Your task to perform on an android device: See recent photos Image 0: 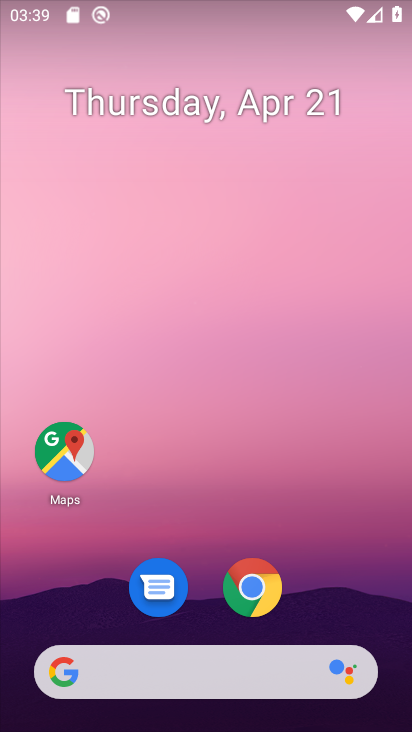
Step 0: drag from (343, 601) to (356, 232)
Your task to perform on an android device: See recent photos Image 1: 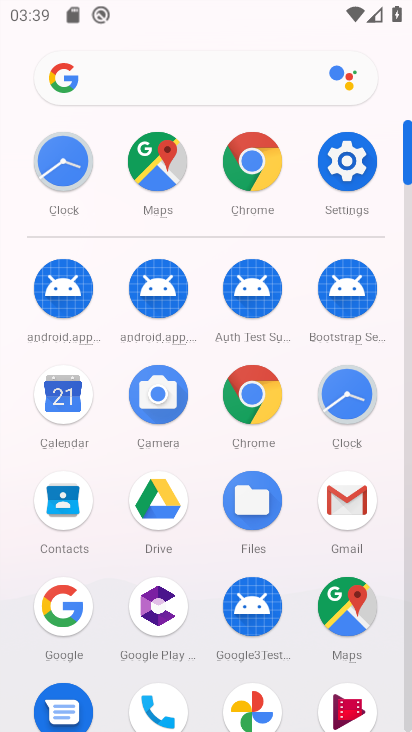
Step 1: drag from (206, 553) to (198, 396)
Your task to perform on an android device: See recent photos Image 2: 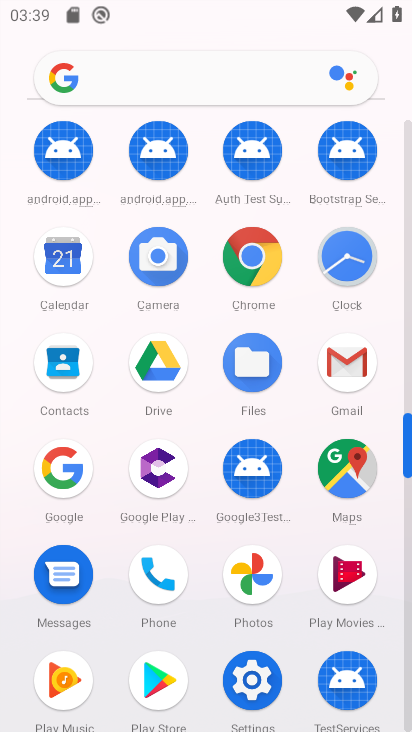
Step 2: drag from (193, 563) to (188, 444)
Your task to perform on an android device: See recent photos Image 3: 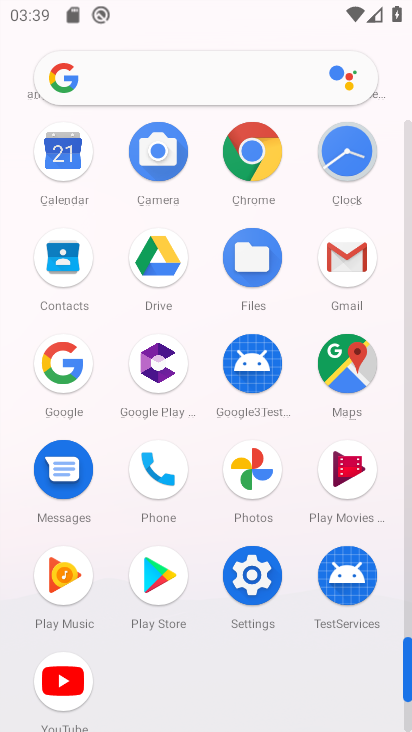
Step 3: click (263, 471)
Your task to perform on an android device: See recent photos Image 4: 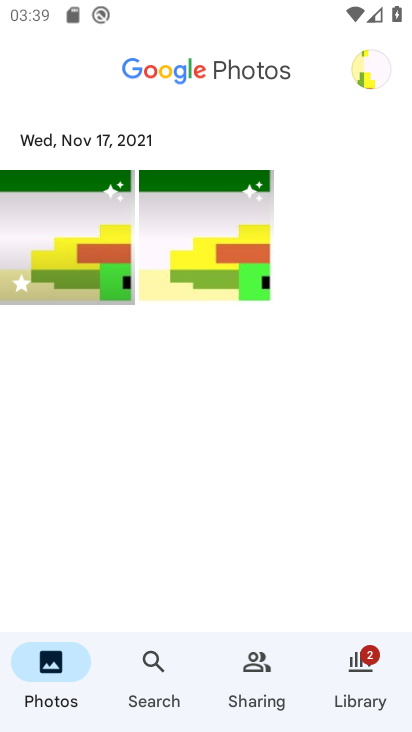
Step 4: click (204, 256)
Your task to perform on an android device: See recent photos Image 5: 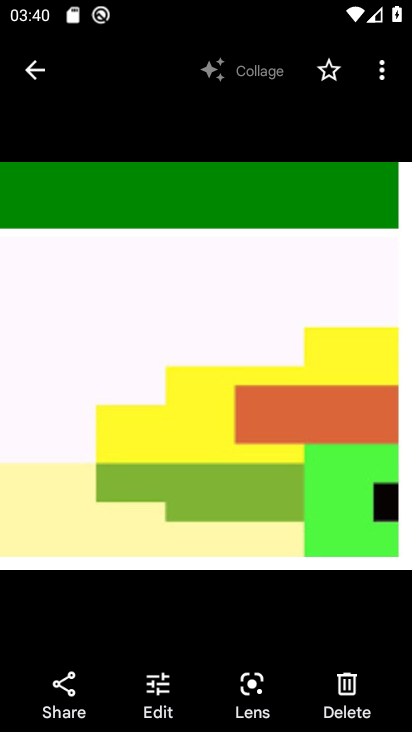
Step 5: task complete